Your task to perform on an android device: change notification settings in the gmail app Image 0: 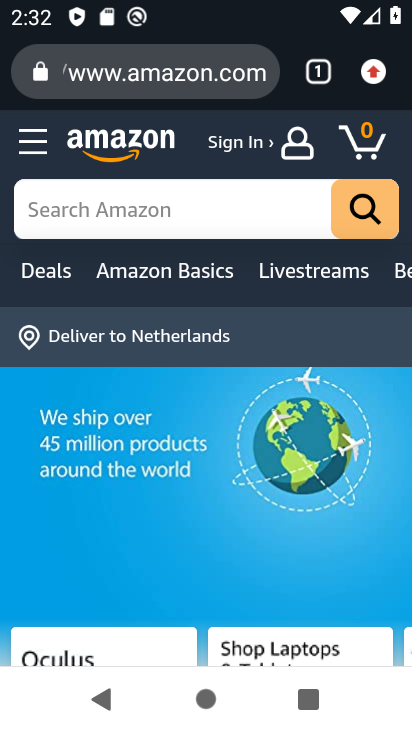
Step 0: press home button
Your task to perform on an android device: change notification settings in the gmail app Image 1: 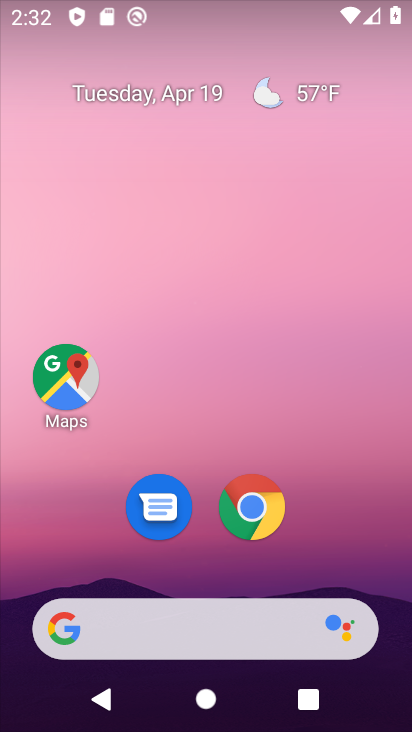
Step 1: drag from (264, 579) to (288, 79)
Your task to perform on an android device: change notification settings in the gmail app Image 2: 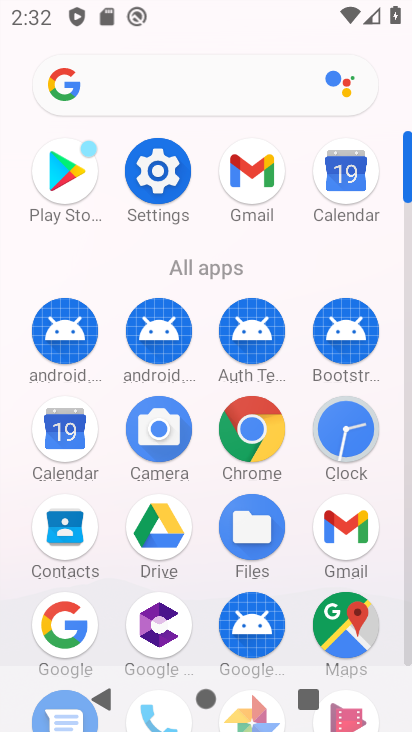
Step 2: click (354, 525)
Your task to perform on an android device: change notification settings in the gmail app Image 3: 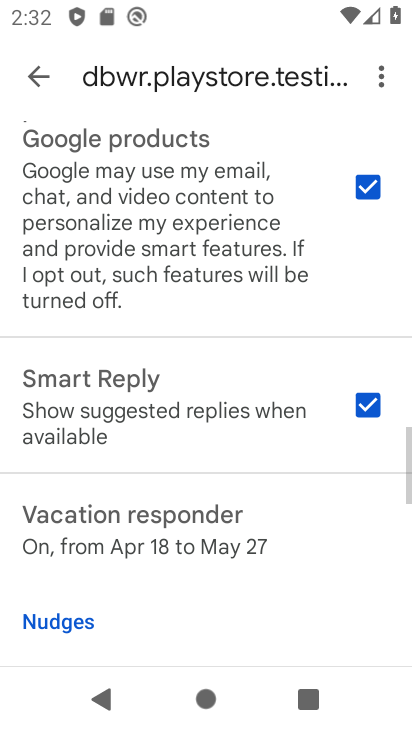
Step 3: drag from (135, 196) to (175, 572)
Your task to perform on an android device: change notification settings in the gmail app Image 4: 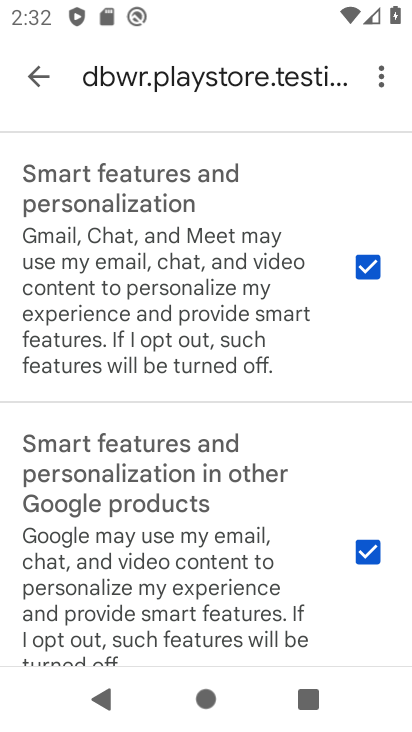
Step 4: drag from (288, 135) to (246, 690)
Your task to perform on an android device: change notification settings in the gmail app Image 5: 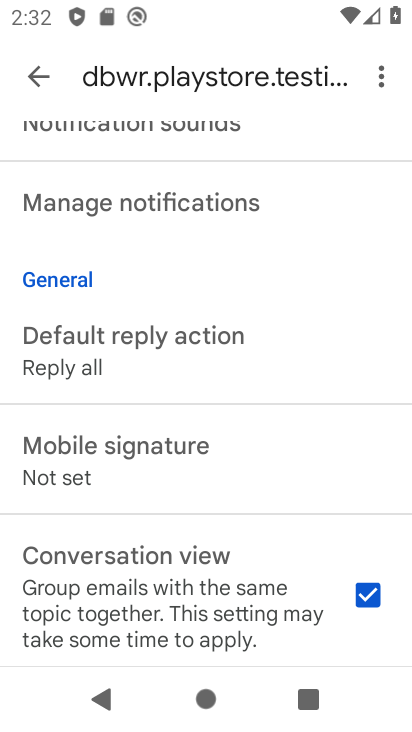
Step 5: click (249, 193)
Your task to perform on an android device: change notification settings in the gmail app Image 6: 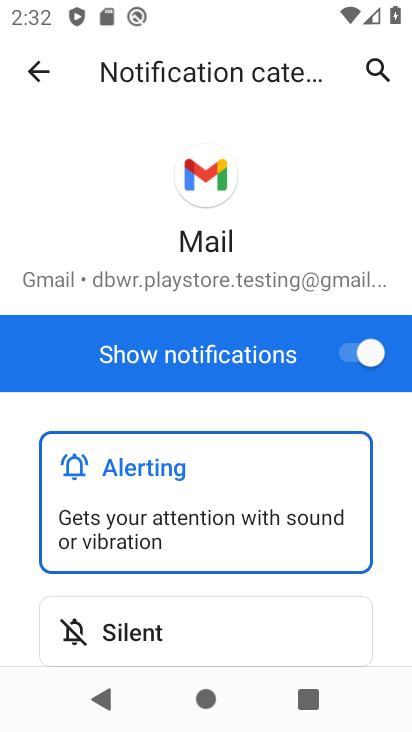
Step 6: click (359, 357)
Your task to perform on an android device: change notification settings in the gmail app Image 7: 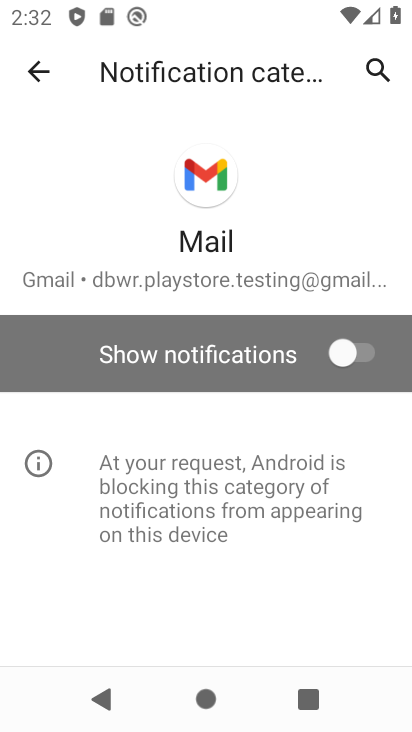
Step 7: task complete